Your task to perform on an android device: Show me the alarms in the clock app Image 0: 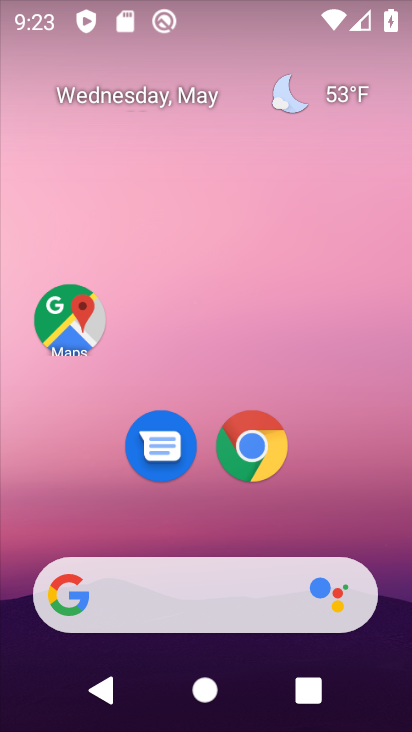
Step 0: drag from (346, 488) to (309, 292)
Your task to perform on an android device: Show me the alarms in the clock app Image 1: 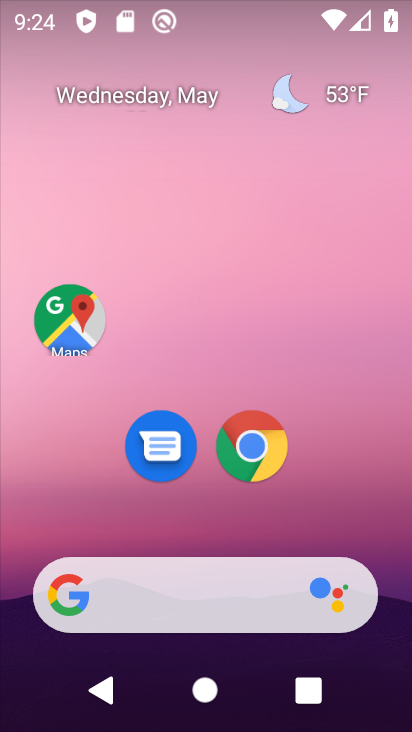
Step 1: drag from (333, 504) to (272, 161)
Your task to perform on an android device: Show me the alarms in the clock app Image 2: 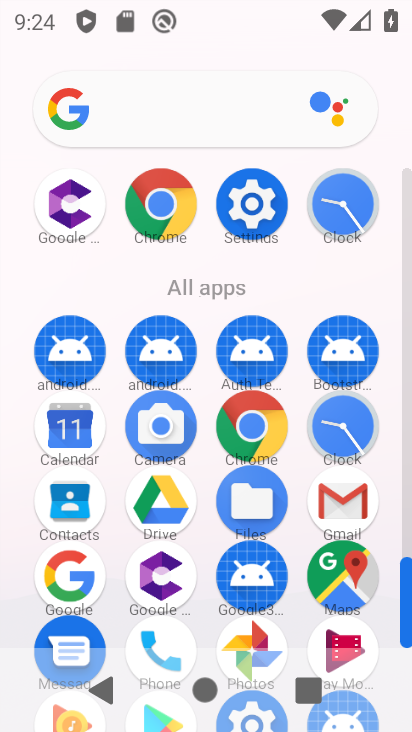
Step 2: click (354, 197)
Your task to perform on an android device: Show me the alarms in the clock app Image 3: 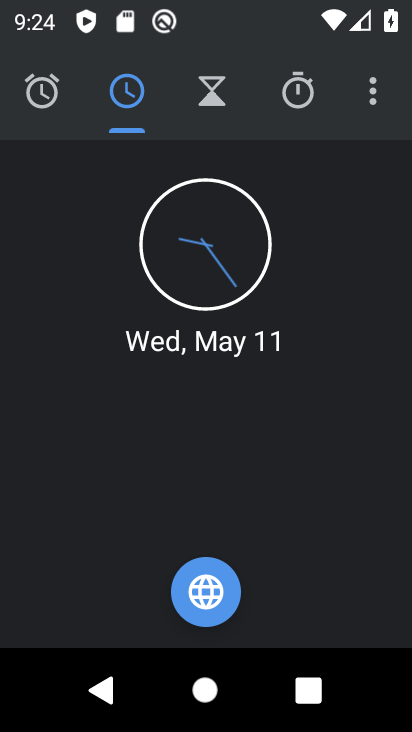
Step 3: click (54, 92)
Your task to perform on an android device: Show me the alarms in the clock app Image 4: 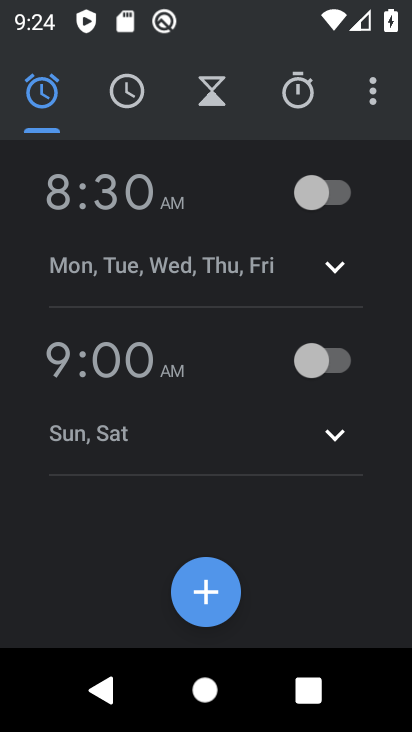
Step 4: task complete